Your task to perform on an android device: delete a single message in the gmail app Image 0: 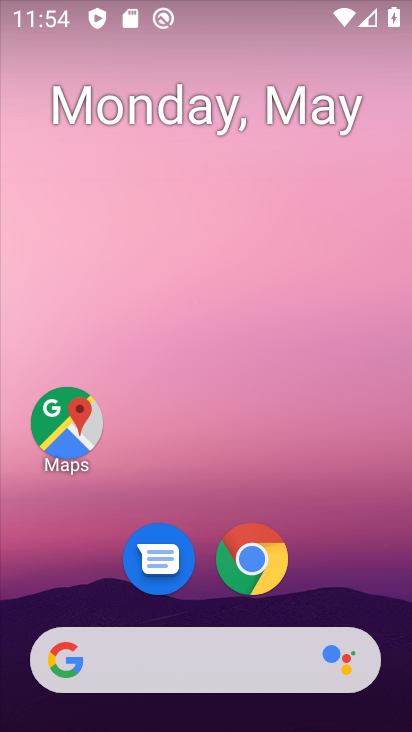
Step 0: drag from (79, 608) to (177, 57)
Your task to perform on an android device: delete a single message in the gmail app Image 1: 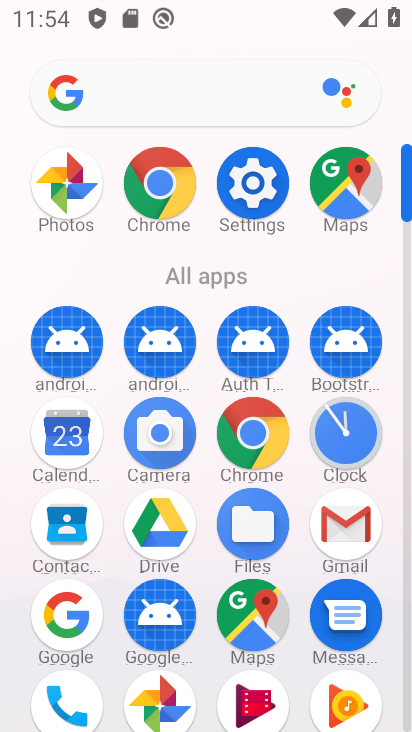
Step 1: click (349, 546)
Your task to perform on an android device: delete a single message in the gmail app Image 2: 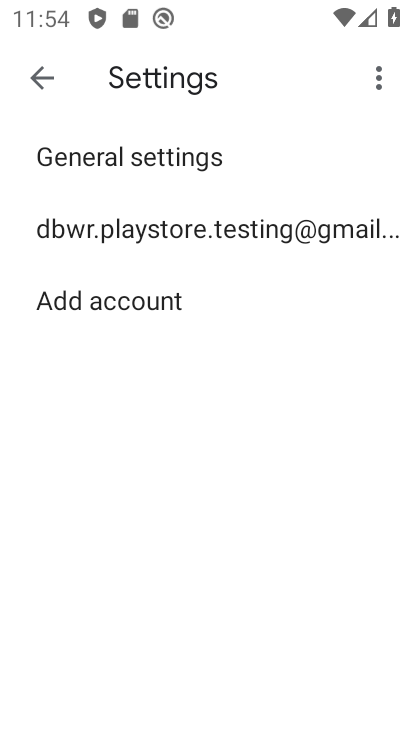
Step 2: click (45, 85)
Your task to perform on an android device: delete a single message in the gmail app Image 3: 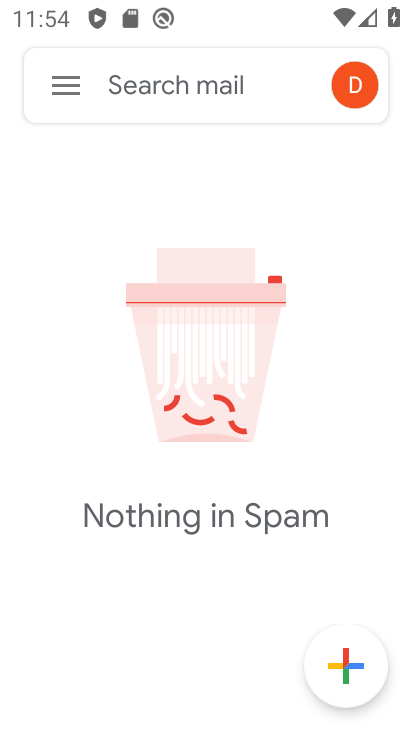
Step 3: click (45, 84)
Your task to perform on an android device: delete a single message in the gmail app Image 4: 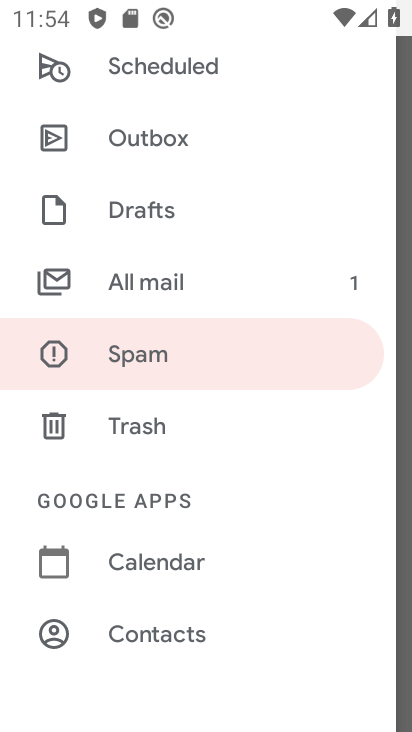
Step 4: click (247, 284)
Your task to perform on an android device: delete a single message in the gmail app Image 5: 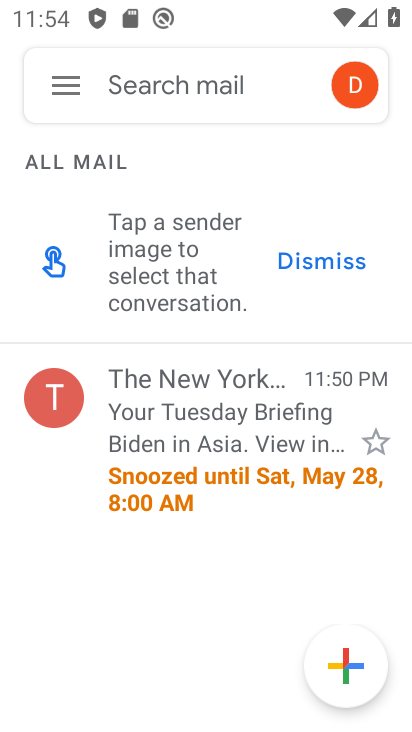
Step 5: click (267, 429)
Your task to perform on an android device: delete a single message in the gmail app Image 6: 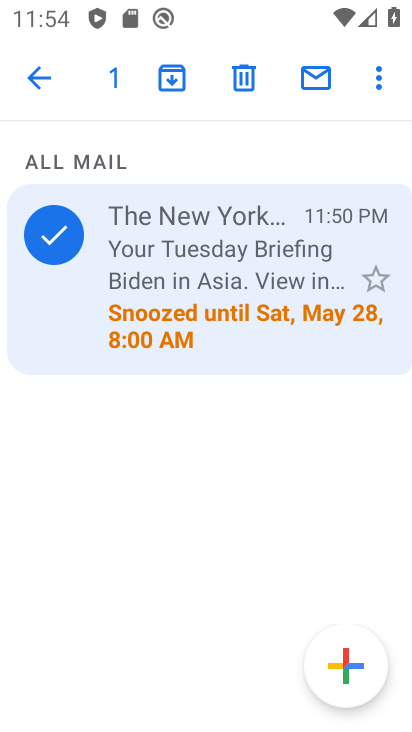
Step 6: click (252, 89)
Your task to perform on an android device: delete a single message in the gmail app Image 7: 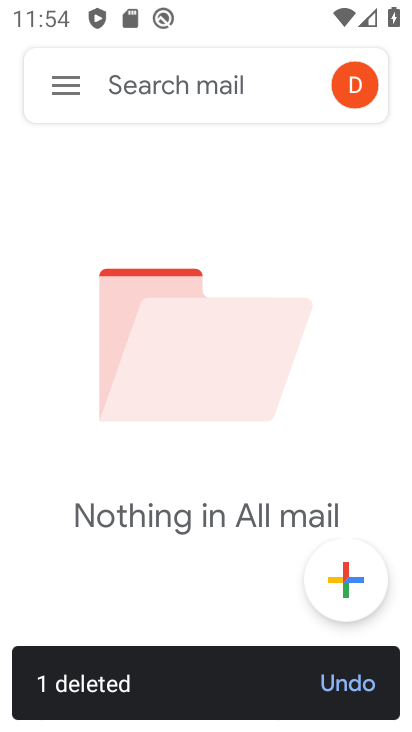
Step 7: task complete